Your task to perform on an android device: change the clock display to analog Image 0: 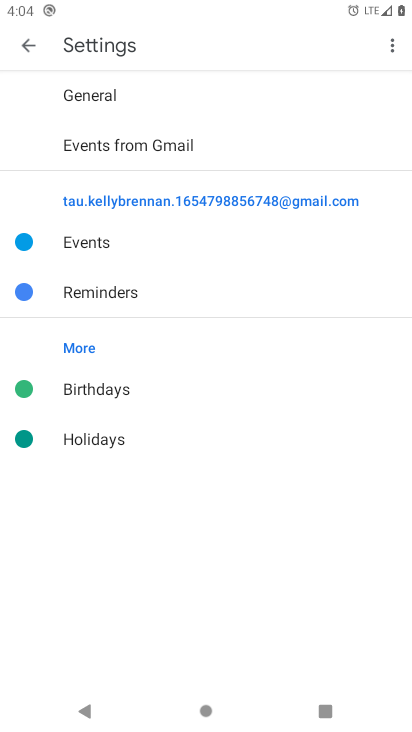
Step 0: press home button
Your task to perform on an android device: change the clock display to analog Image 1: 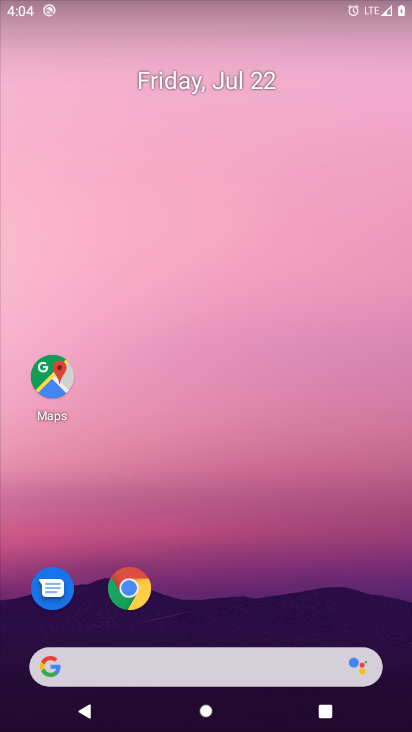
Step 1: drag from (228, 583) to (240, 96)
Your task to perform on an android device: change the clock display to analog Image 2: 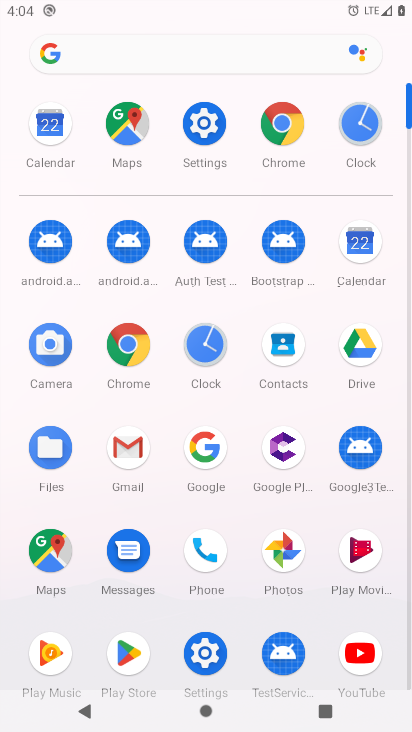
Step 2: click (199, 350)
Your task to perform on an android device: change the clock display to analog Image 3: 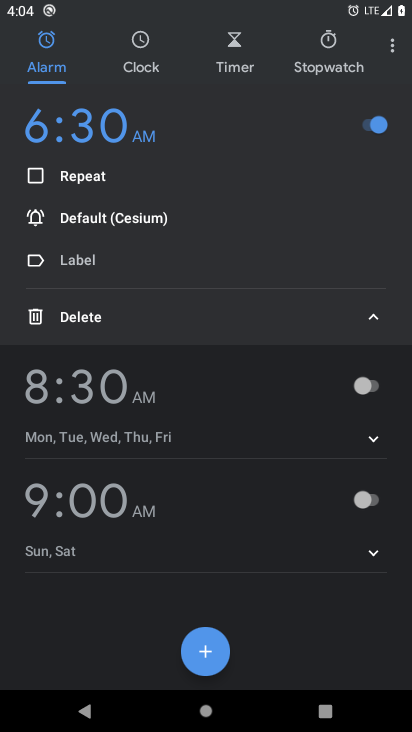
Step 3: click (393, 46)
Your task to perform on an android device: change the clock display to analog Image 4: 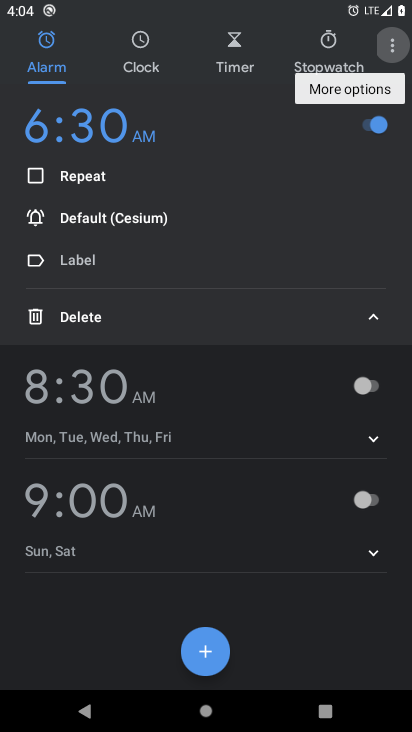
Step 4: click (396, 49)
Your task to perform on an android device: change the clock display to analog Image 5: 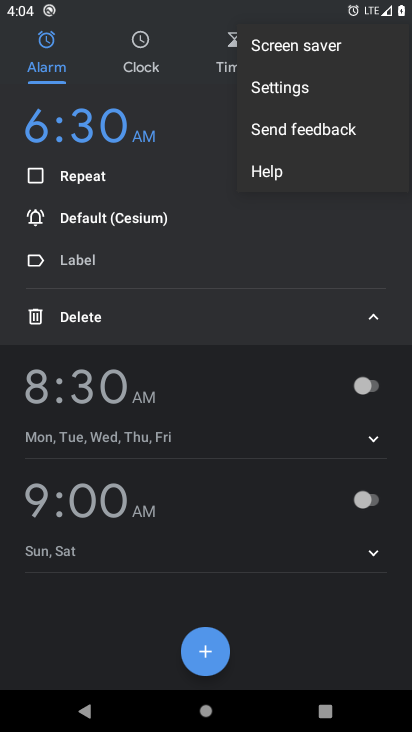
Step 5: click (285, 90)
Your task to perform on an android device: change the clock display to analog Image 6: 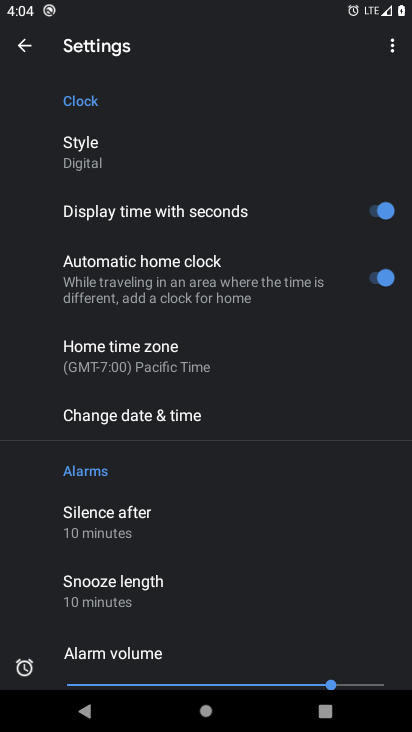
Step 6: click (92, 151)
Your task to perform on an android device: change the clock display to analog Image 7: 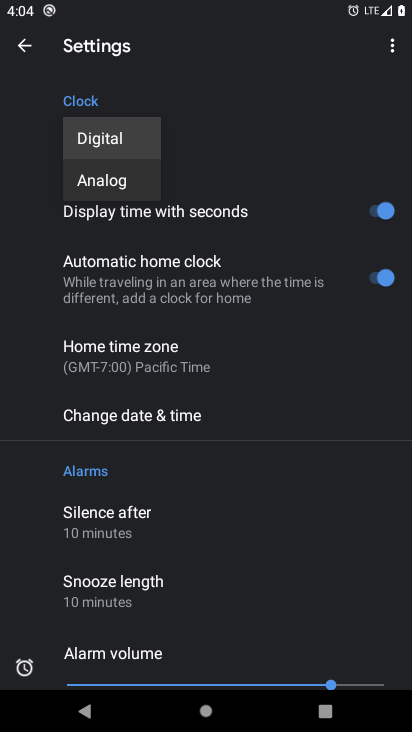
Step 7: click (129, 168)
Your task to perform on an android device: change the clock display to analog Image 8: 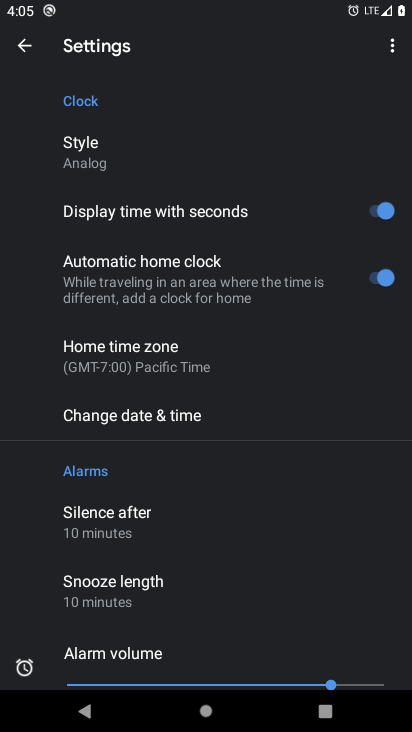
Step 8: task complete